Your task to perform on an android device: turn on priority inbox in the gmail app Image 0: 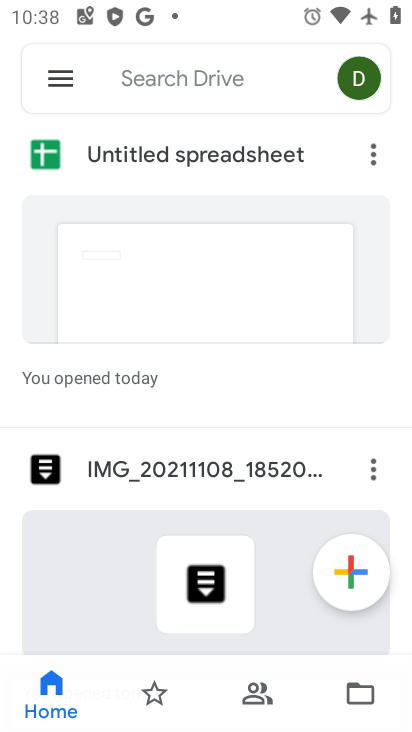
Step 0: press home button
Your task to perform on an android device: turn on priority inbox in the gmail app Image 1: 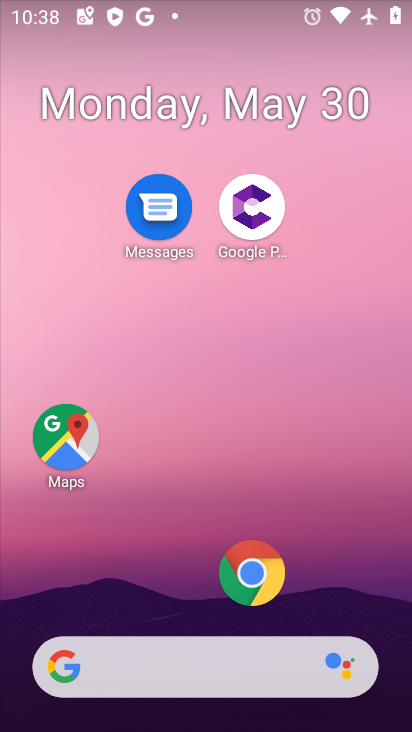
Step 1: drag from (178, 644) to (262, 139)
Your task to perform on an android device: turn on priority inbox in the gmail app Image 2: 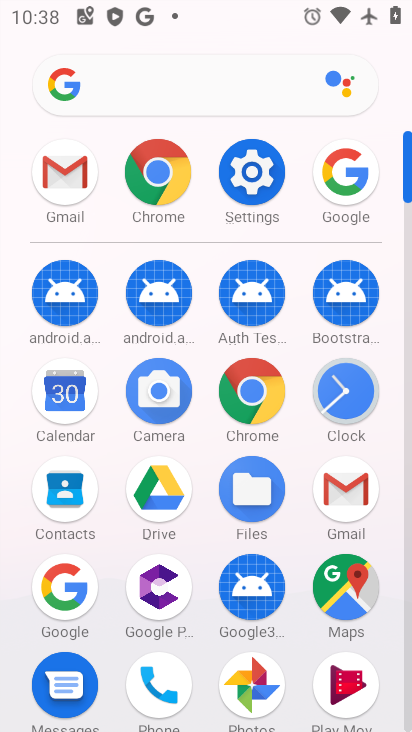
Step 2: click (357, 507)
Your task to perform on an android device: turn on priority inbox in the gmail app Image 3: 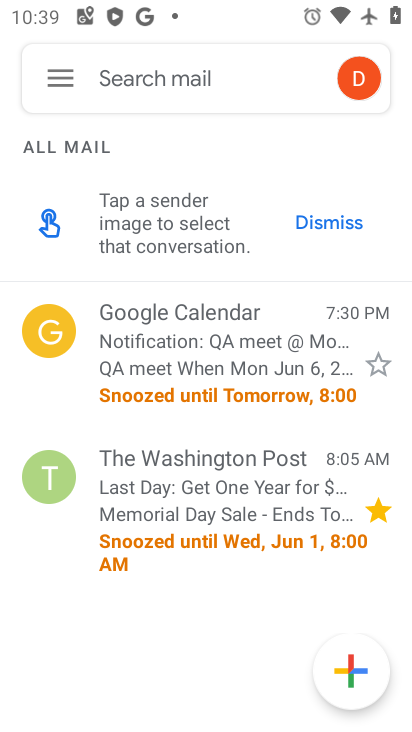
Step 3: click (65, 71)
Your task to perform on an android device: turn on priority inbox in the gmail app Image 4: 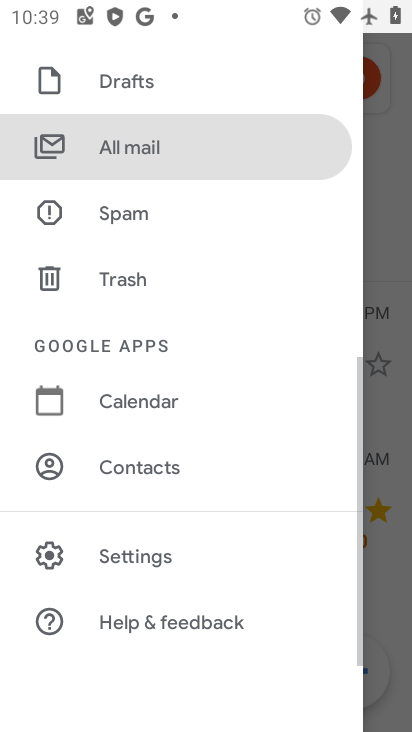
Step 4: click (120, 545)
Your task to perform on an android device: turn on priority inbox in the gmail app Image 5: 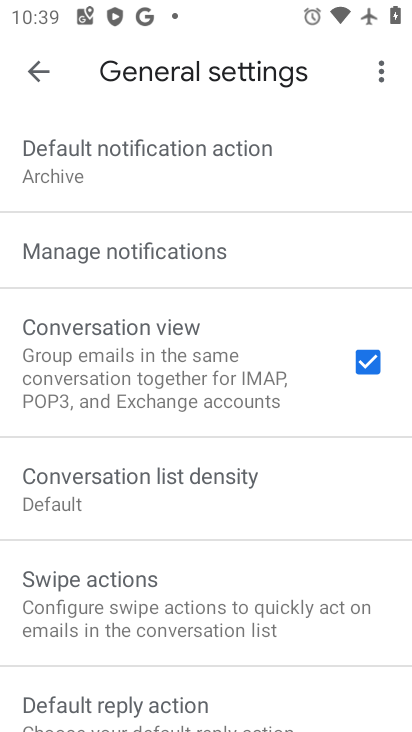
Step 5: click (195, 252)
Your task to perform on an android device: turn on priority inbox in the gmail app Image 6: 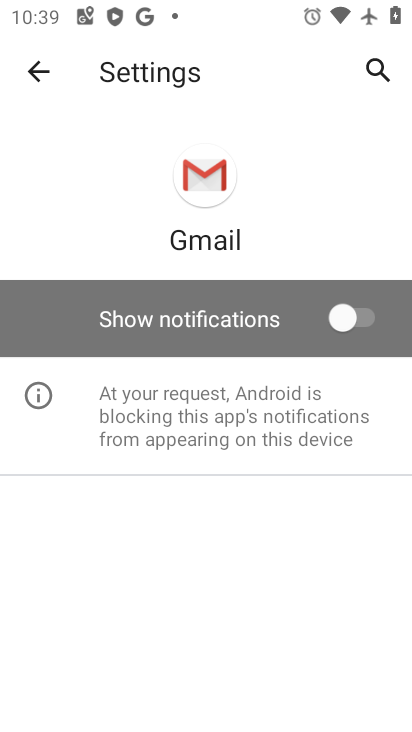
Step 6: click (217, 329)
Your task to perform on an android device: turn on priority inbox in the gmail app Image 7: 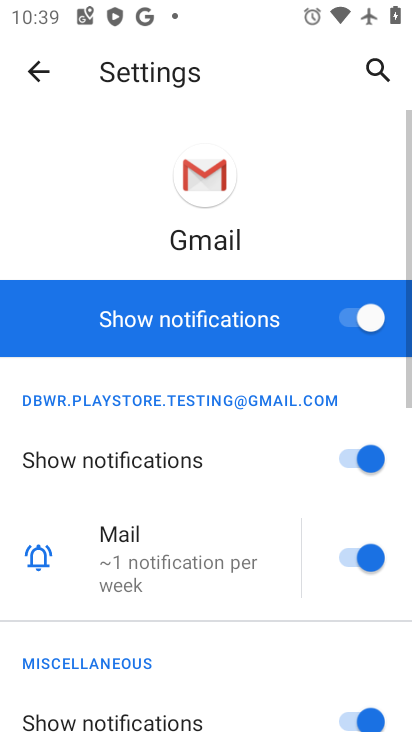
Step 7: task complete